Your task to perform on an android device: Go to eBay Image 0: 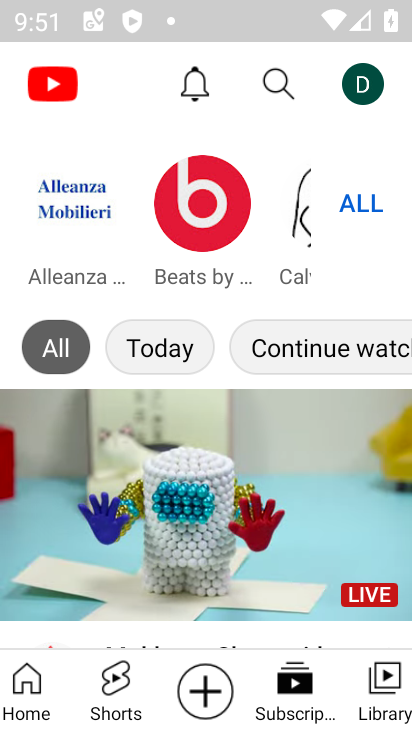
Step 0: press home button
Your task to perform on an android device: Go to eBay Image 1: 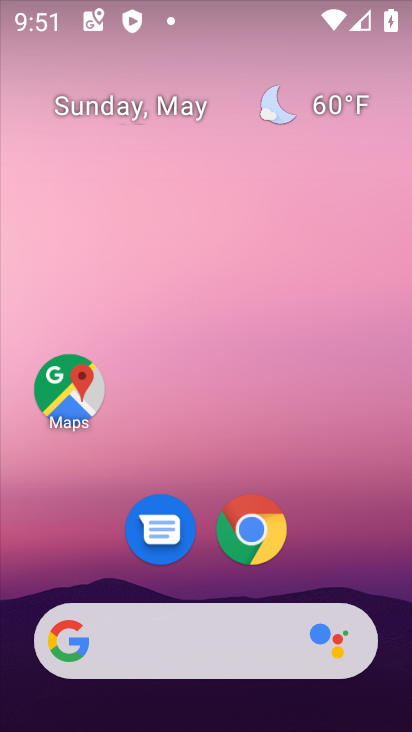
Step 1: click (232, 534)
Your task to perform on an android device: Go to eBay Image 2: 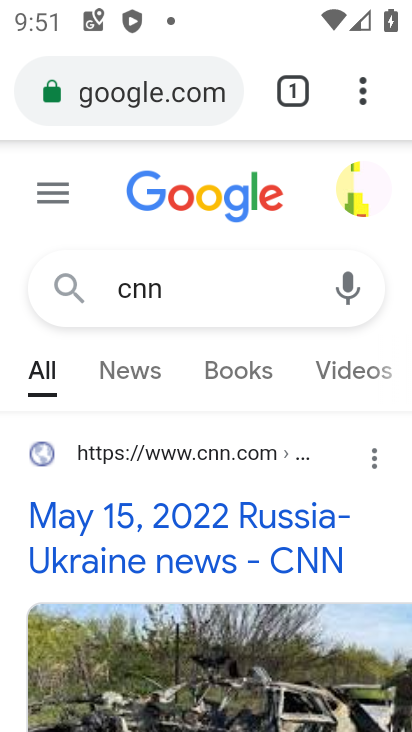
Step 2: click (145, 86)
Your task to perform on an android device: Go to eBay Image 3: 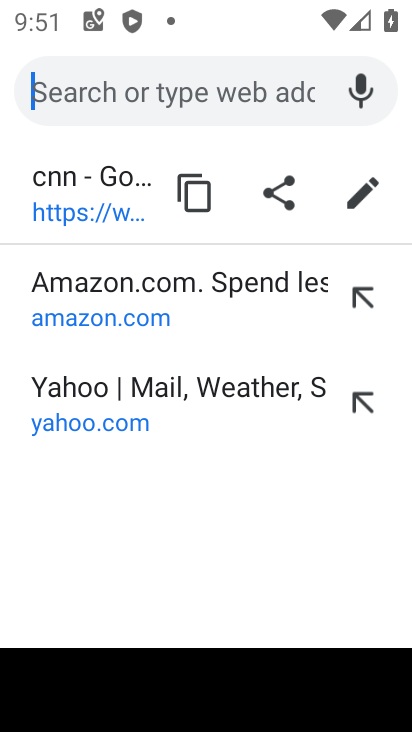
Step 3: type "ebay"
Your task to perform on an android device: Go to eBay Image 4: 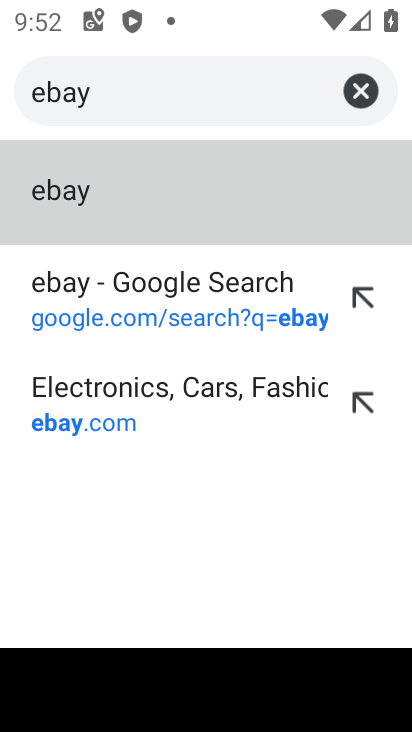
Step 4: click (75, 193)
Your task to perform on an android device: Go to eBay Image 5: 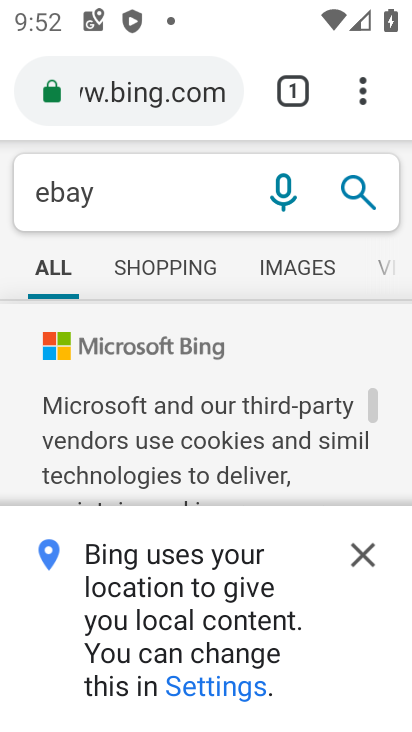
Step 5: task complete